Your task to perform on an android device: Open maps Image 0: 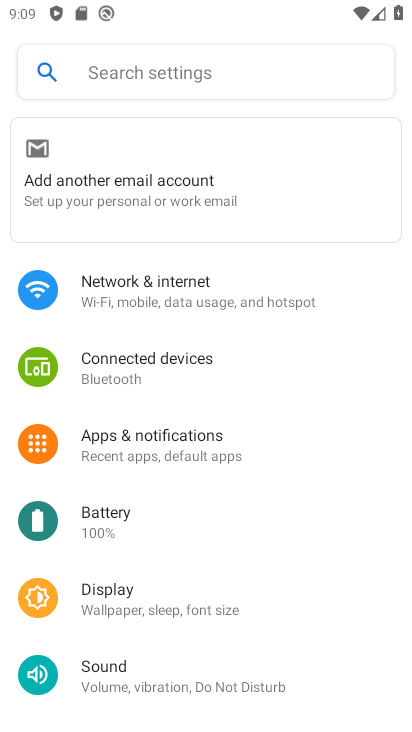
Step 0: press home button
Your task to perform on an android device: Open maps Image 1: 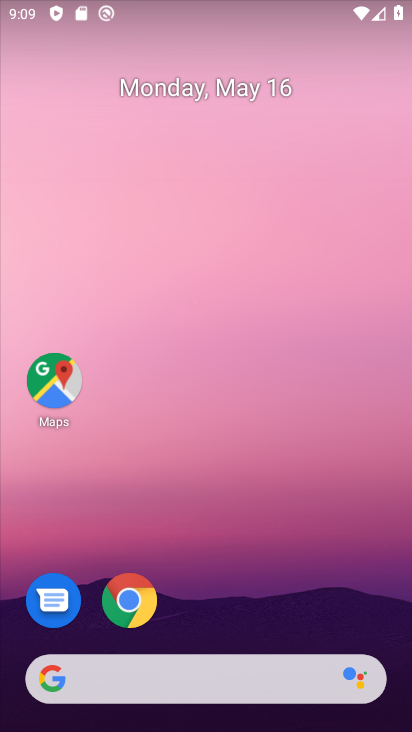
Step 1: click (63, 407)
Your task to perform on an android device: Open maps Image 2: 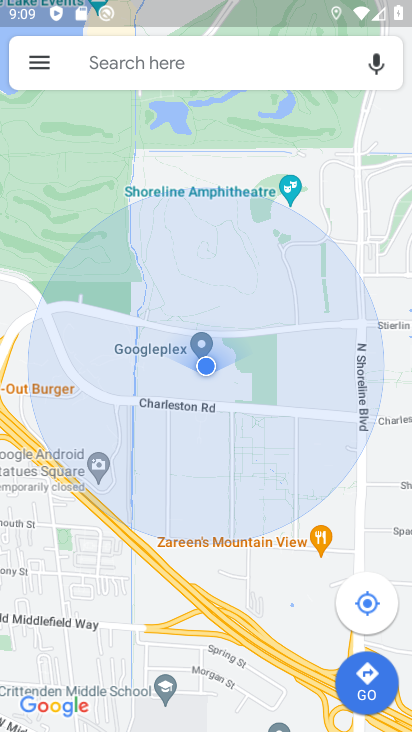
Step 2: task complete